Your task to perform on an android device: turn on data saver in the chrome app Image 0: 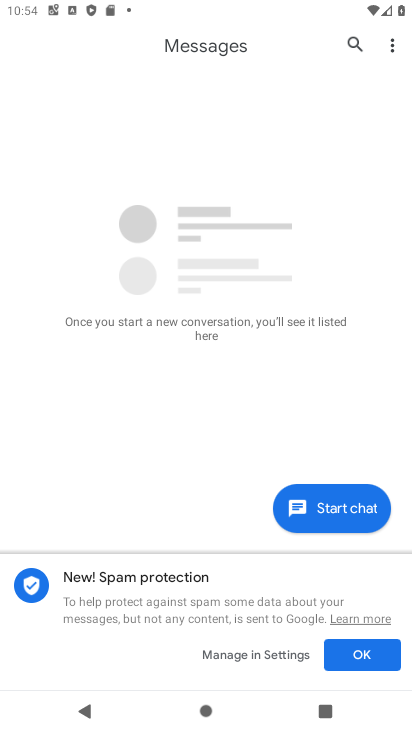
Step 0: press home button
Your task to perform on an android device: turn on data saver in the chrome app Image 1: 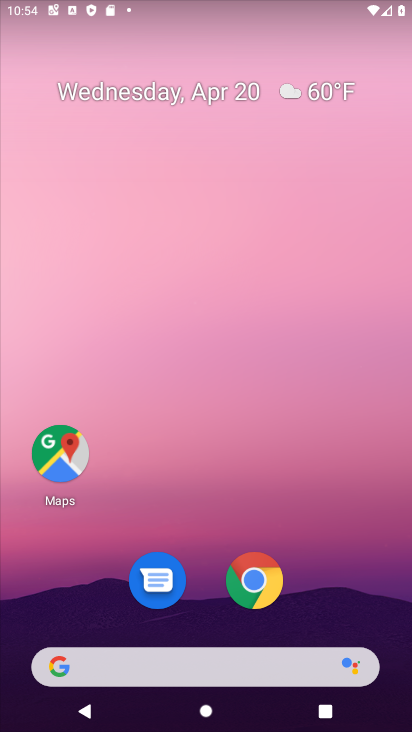
Step 1: click (243, 591)
Your task to perform on an android device: turn on data saver in the chrome app Image 2: 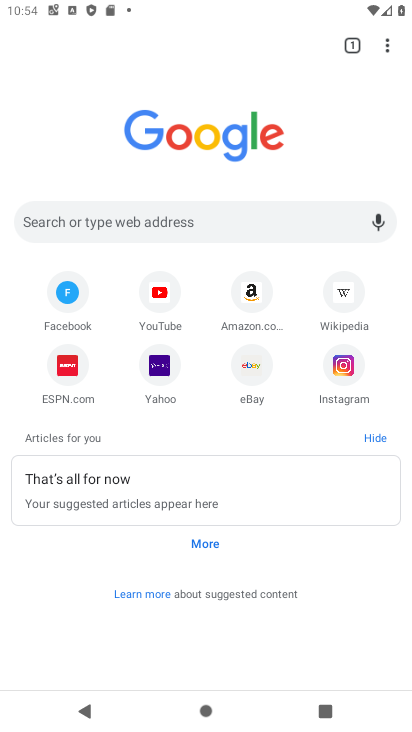
Step 2: drag from (388, 45) to (285, 432)
Your task to perform on an android device: turn on data saver in the chrome app Image 3: 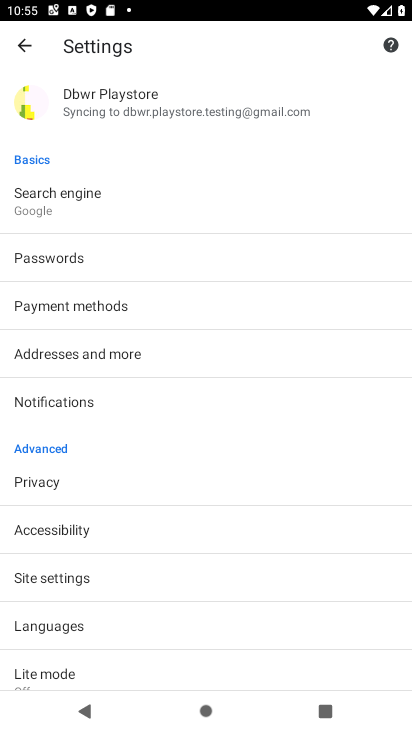
Step 3: click (76, 661)
Your task to perform on an android device: turn on data saver in the chrome app Image 4: 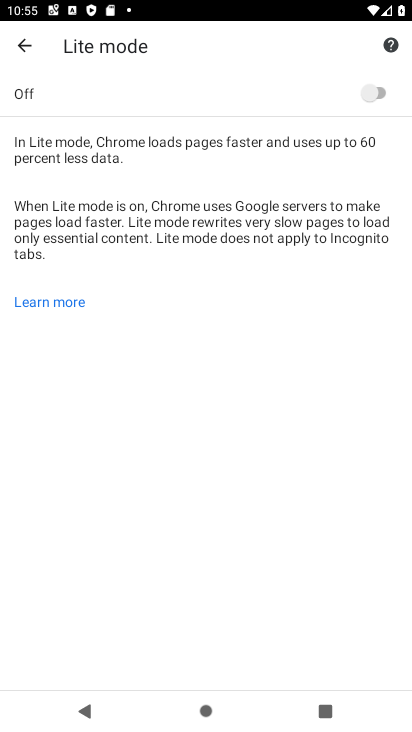
Step 4: click (383, 85)
Your task to perform on an android device: turn on data saver in the chrome app Image 5: 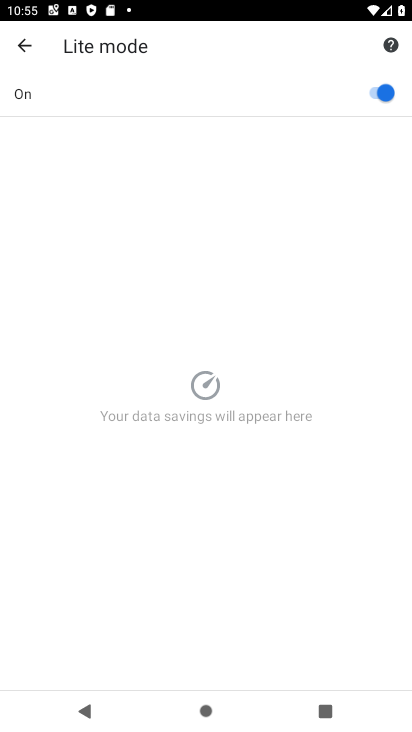
Step 5: task complete